Your task to perform on an android device: Go to settings Image 0: 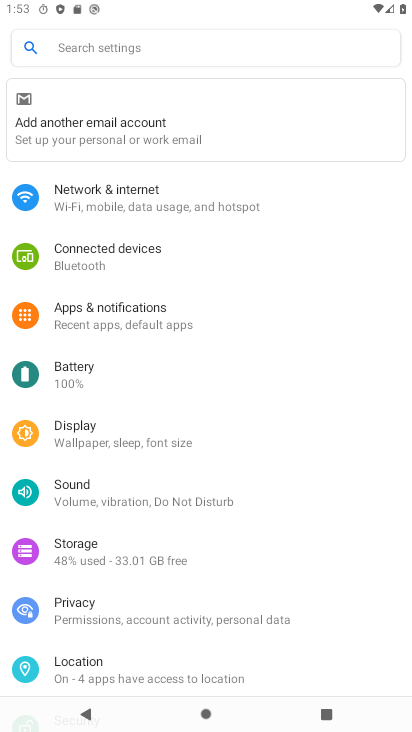
Step 0: press home button
Your task to perform on an android device: Go to settings Image 1: 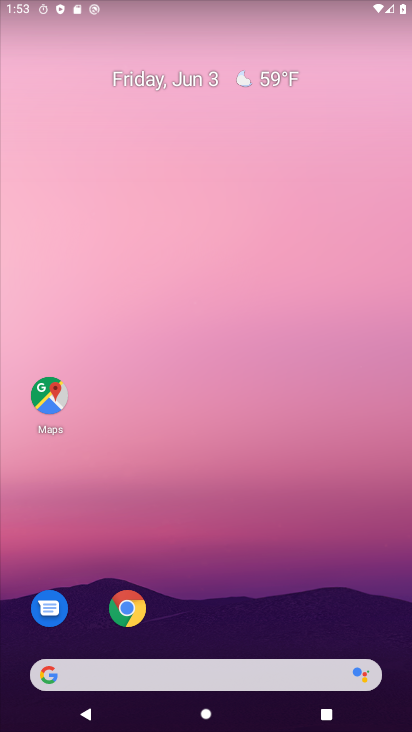
Step 1: drag from (219, 670) to (211, 177)
Your task to perform on an android device: Go to settings Image 2: 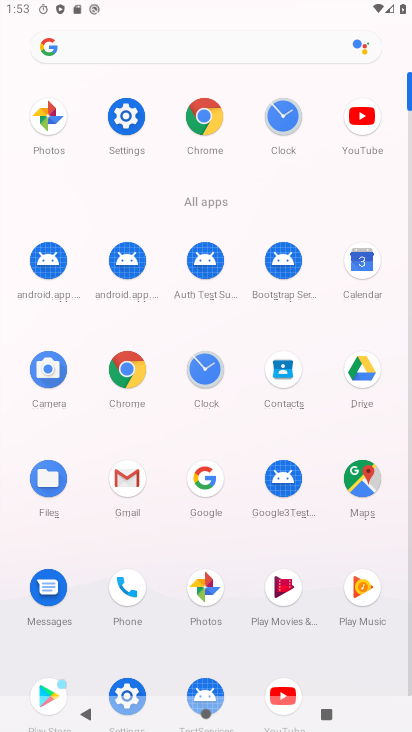
Step 2: click (125, 119)
Your task to perform on an android device: Go to settings Image 3: 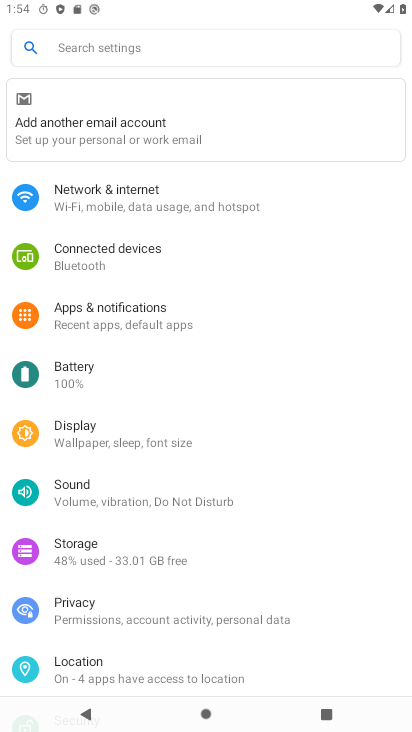
Step 3: task complete